Your task to perform on an android device: Open Chrome and go to the settings page Image 0: 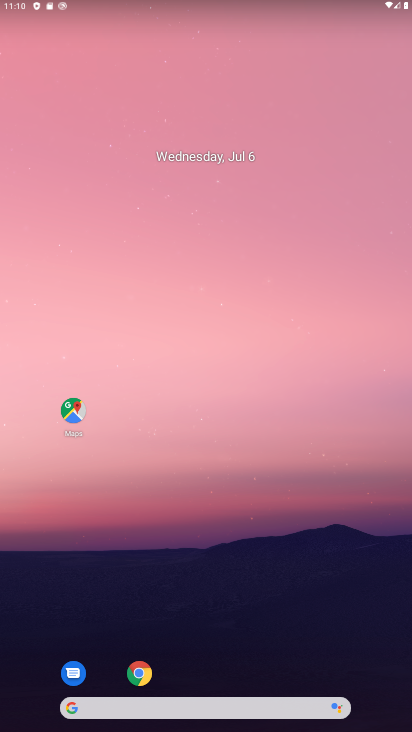
Step 0: drag from (278, 635) to (238, 129)
Your task to perform on an android device: Open Chrome and go to the settings page Image 1: 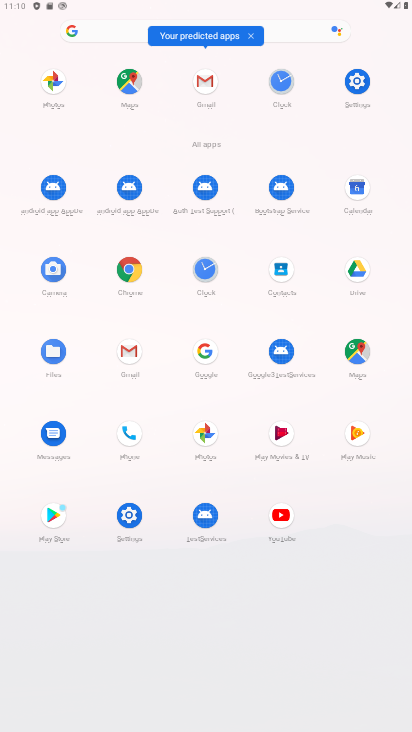
Step 1: click (128, 272)
Your task to perform on an android device: Open Chrome and go to the settings page Image 2: 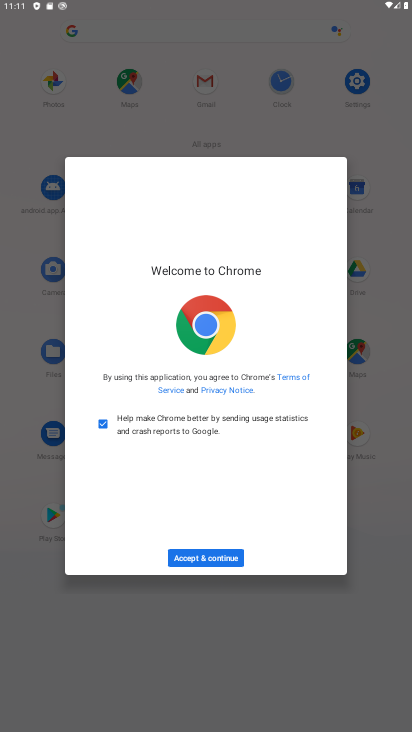
Step 2: click (209, 556)
Your task to perform on an android device: Open Chrome and go to the settings page Image 3: 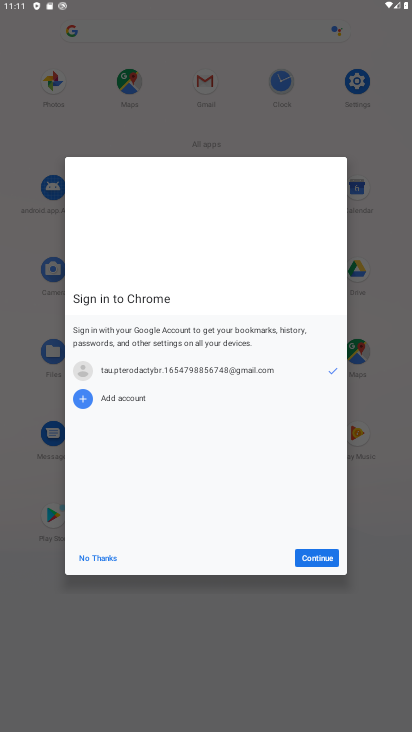
Step 3: click (324, 564)
Your task to perform on an android device: Open Chrome and go to the settings page Image 4: 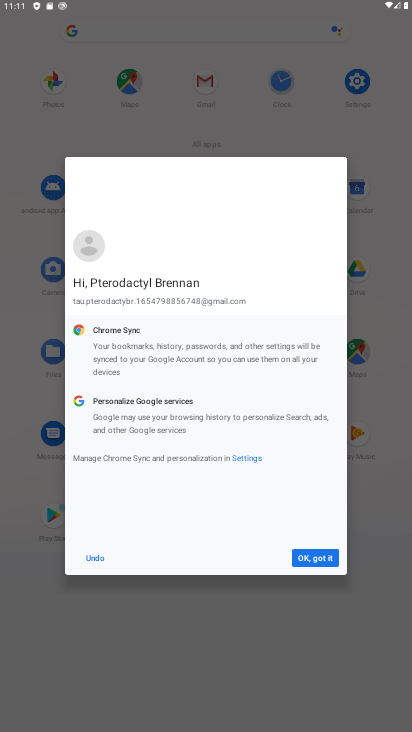
Step 4: click (321, 558)
Your task to perform on an android device: Open Chrome and go to the settings page Image 5: 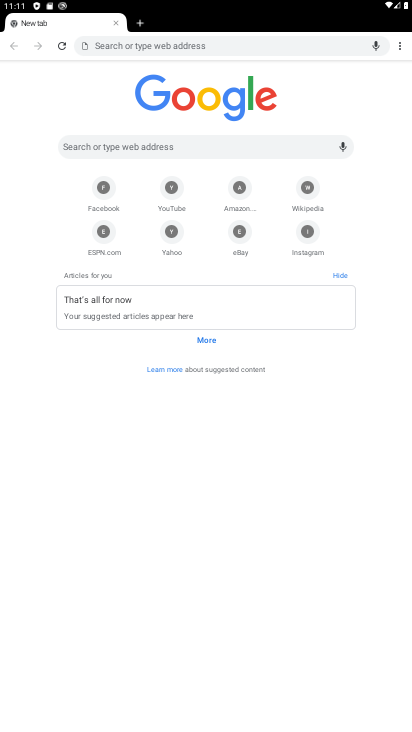
Step 5: click (403, 53)
Your task to perform on an android device: Open Chrome and go to the settings page Image 6: 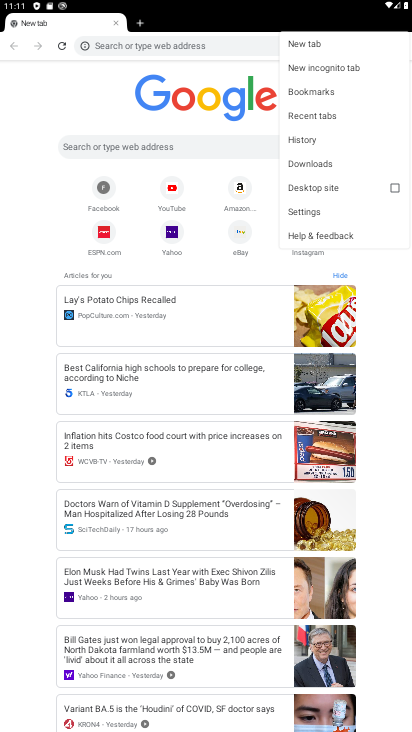
Step 6: click (307, 217)
Your task to perform on an android device: Open Chrome and go to the settings page Image 7: 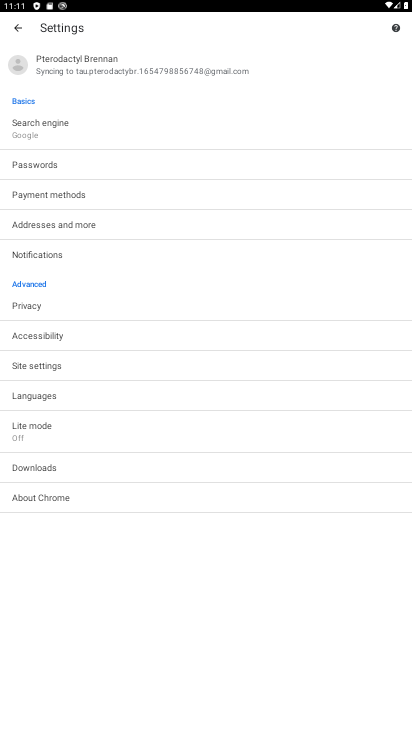
Step 7: task complete